Your task to perform on an android device: What is the recent news? Image 0: 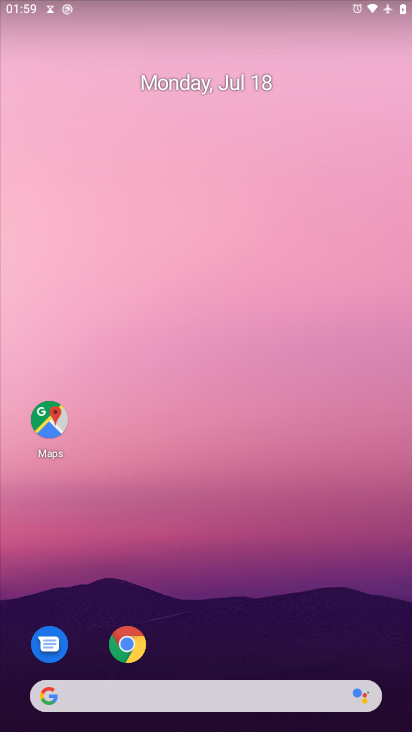
Step 0: press home button
Your task to perform on an android device: What is the recent news? Image 1: 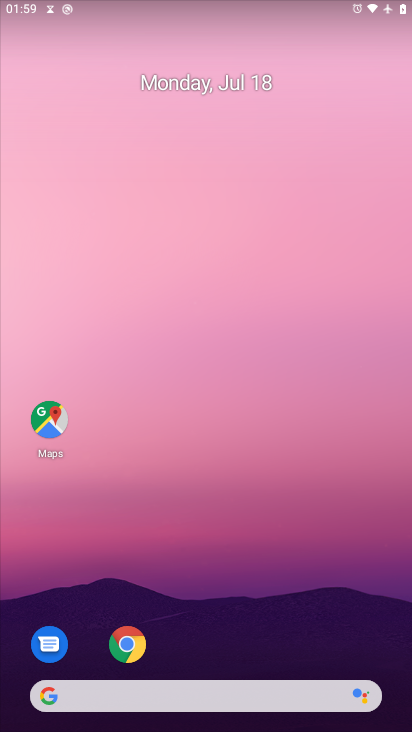
Step 1: click (51, 697)
Your task to perform on an android device: What is the recent news? Image 2: 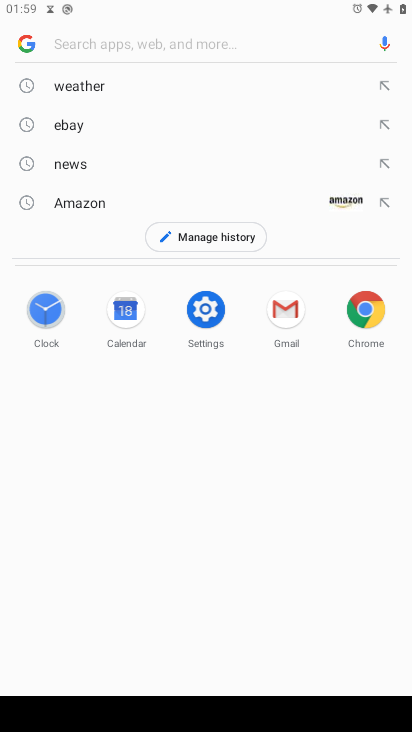
Step 2: type "recent news?"
Your task to perform on an android device: What is the recent news? Image 3: 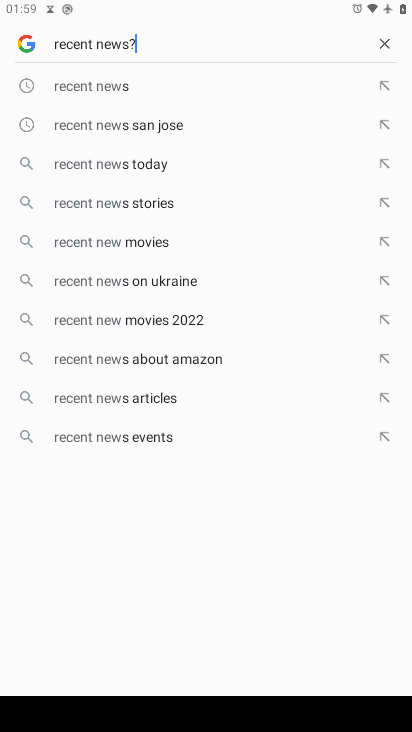
Step 3: press enter
Your task to perform on an android device: What is the recent news? Image 4: 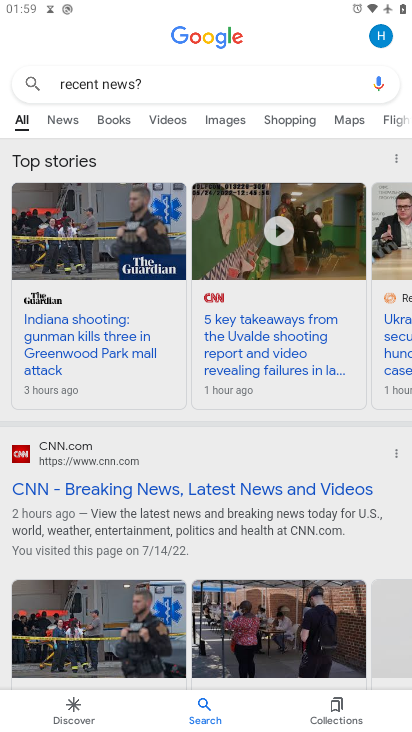
Step 4: task complete